Your task to perform on an android device: Go to CNN.com Image 0: 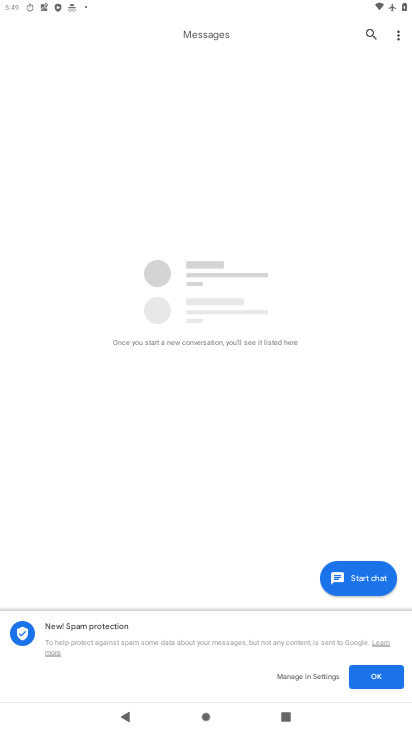
Step 0: press home button
Your task to perform on an android device: Go to CNN.com Image 1: 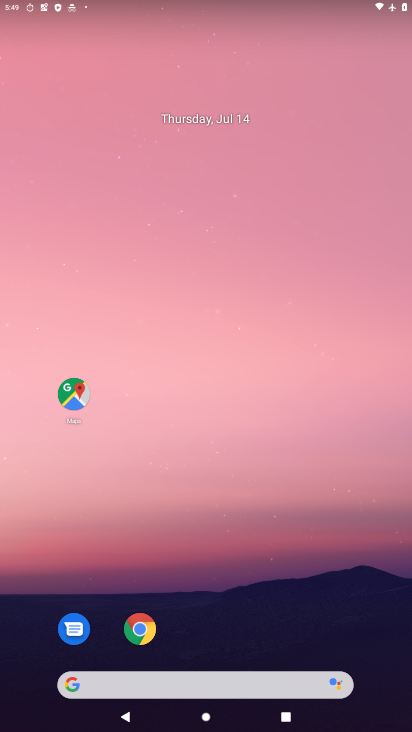
Step 1: drag from (231, 683) to (301, 0)
Your task to perform on an android device: Go to CNN.com Image 2: 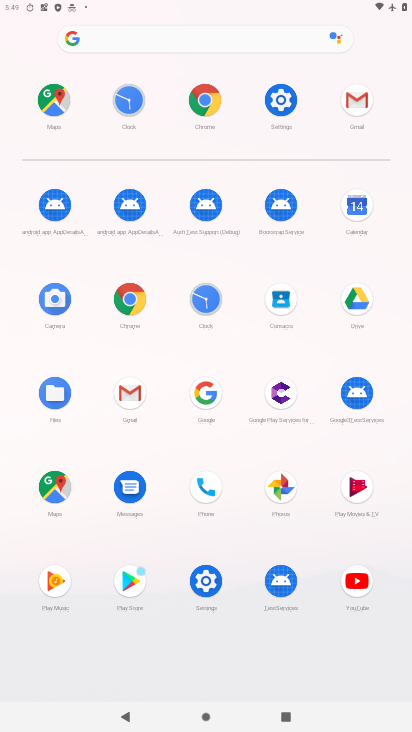
Step 2: click (137, 296)
Your task to perform on an android device: Go to CNN.com Image 3: 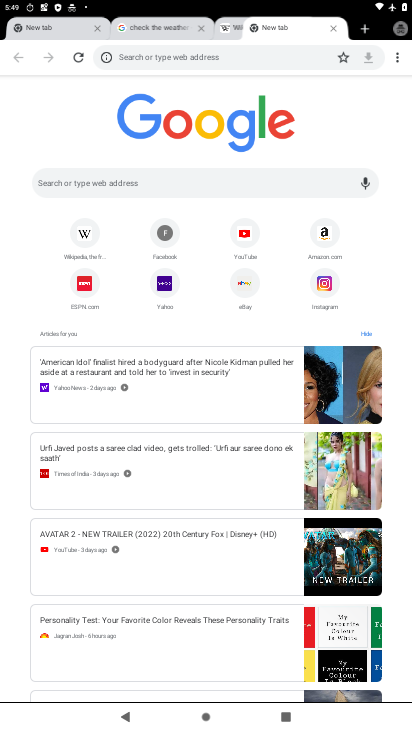
Step 3: click (204, 52)
Your task to perform on an android device: Go to CNN.com Image 4: 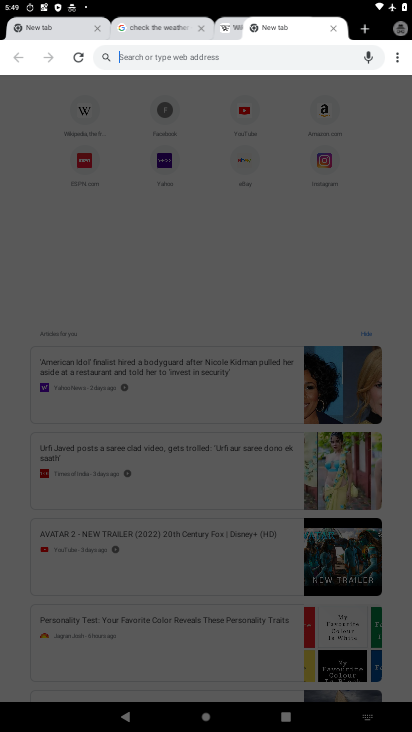
Step 4: type "cnn.com"
Your task to perform on an android device: Go to CNN.com Image 5: 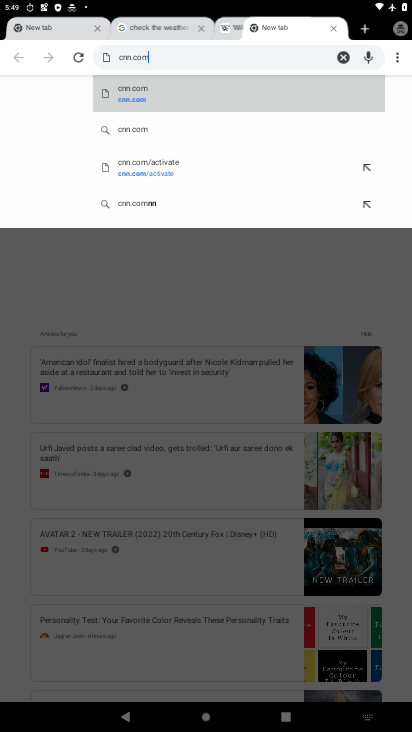
Step 5: click (206, 93)
Your task to perform on an android device: Go to CNN.com Image 6: 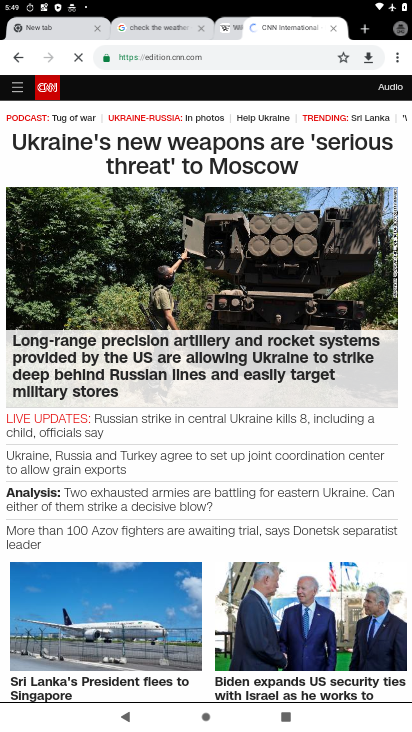
Step 6: task complete